Your task to perform on an android device: visit the assistant section in the google photos Image 0: 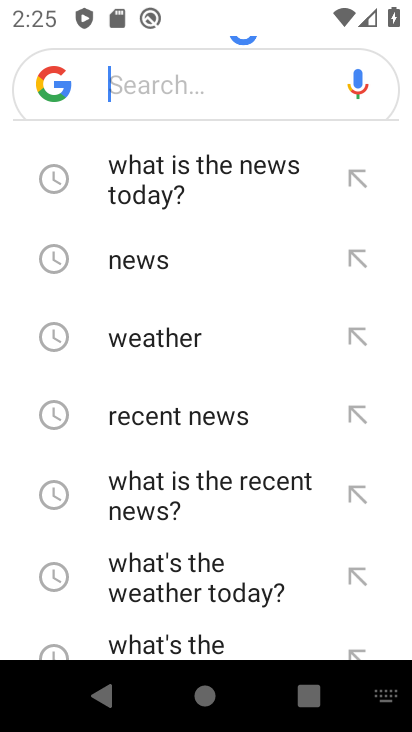
Step 0: press home button
Your task to perform on an android device: visit the assistant section in the google photos Image 1: 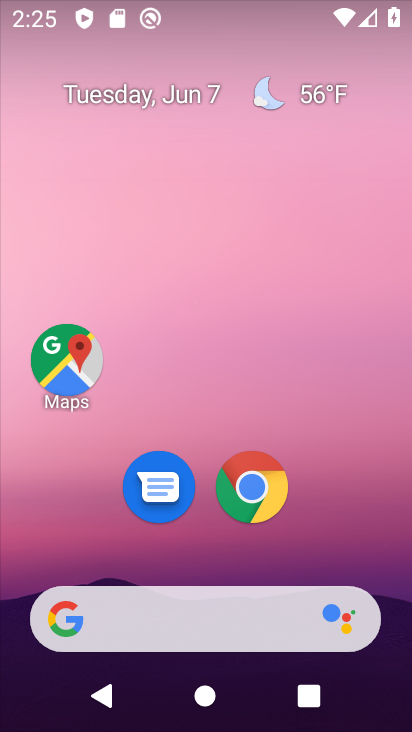
Step 1: drag from (354, 528) to (298, 155)
Your task to perform on an android device: visit the assistant section in the google photos Image 2: 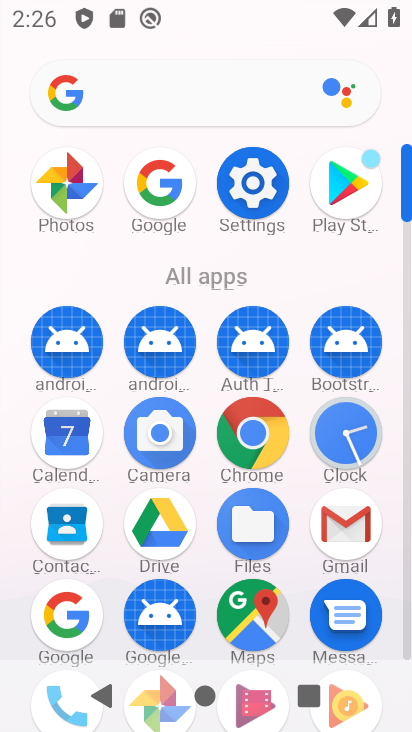
Step 2: click (71, 179)
Your task to perform on an android device: visit the assistant section in the google photos Image 3: 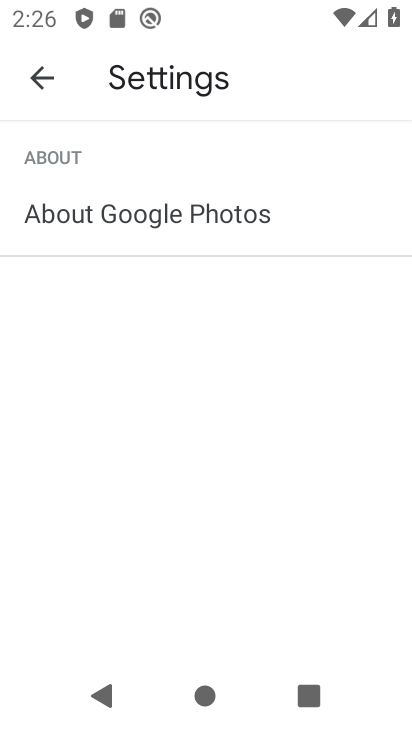
Step 3: click (34, 80)
Your task to perform on an android device: visit the assistant section in the google photos Image 4: 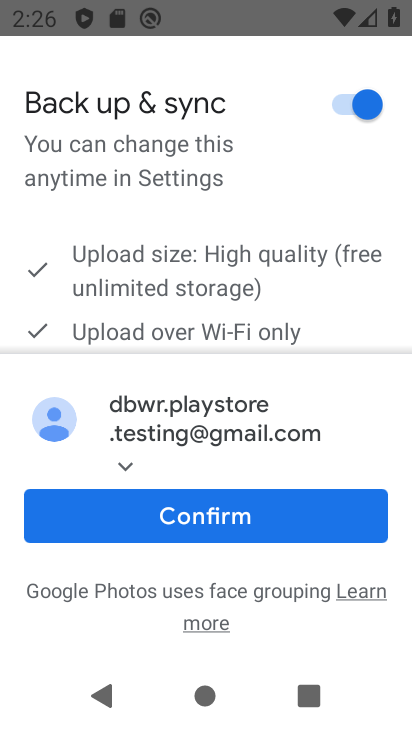
Step 4: click (229, 512)
Your task to perform on an android device: visit the assistant section in the google photos Image 5: 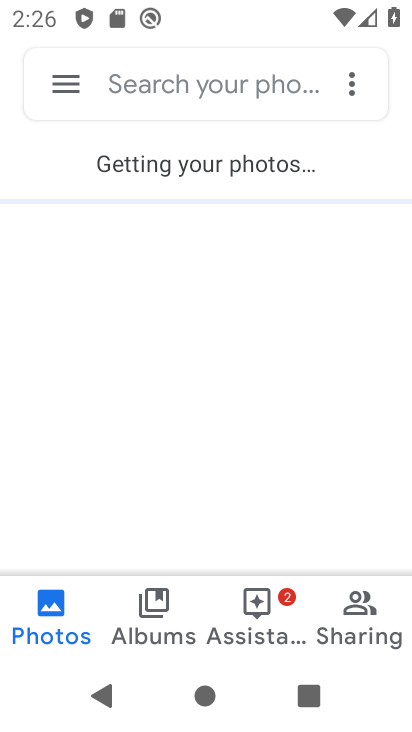
Step 5: click (265, 603)
Your task to perform on an android device: visit the assistant section in the google photos Image 6: 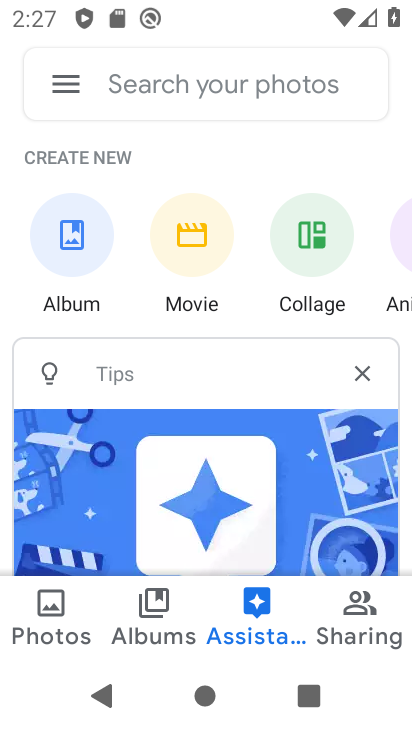
Step 6: task complete